Your task to perform on an android device: Open eBay Image 0: 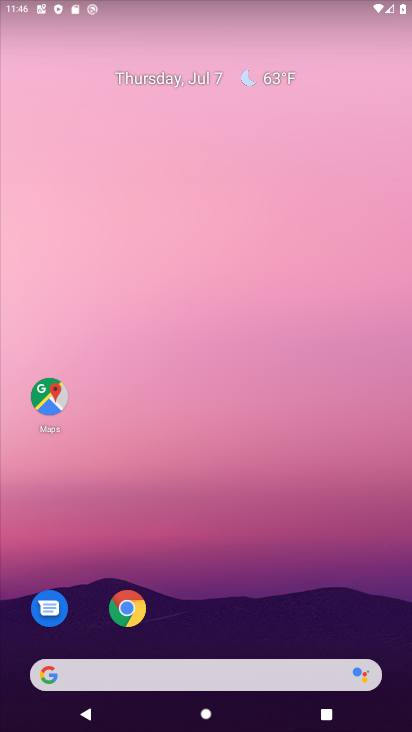
Step 0: click (120, 594)
Your task to perform on an android device: Open eBay Image 1: 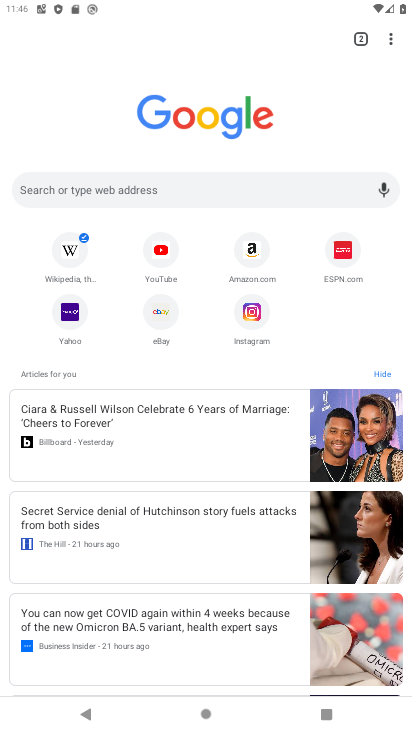
Step 1: click (162, 317)
Your task to perform on an android device: Open eBay Image 2: 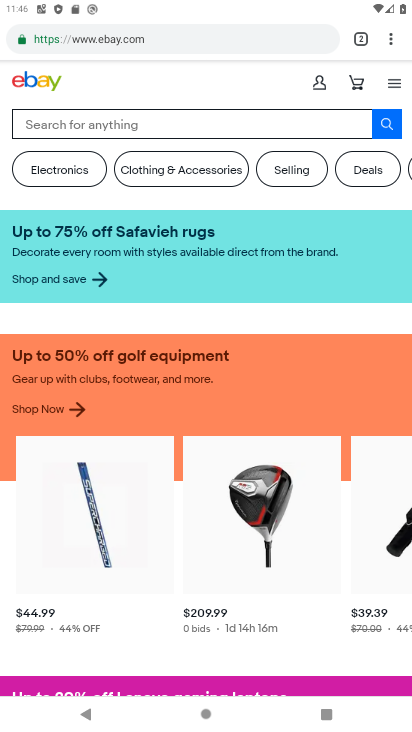
Step 2: task complete